Your task to perform on an android device: open wifi settings Image 0: 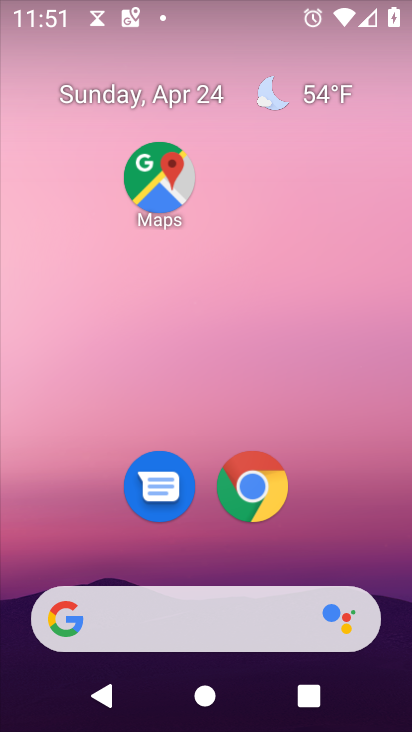
Step 0: drag from (219, 565) to (307, 47)
Your task to perform on an android device: open wifi settings Image 1: 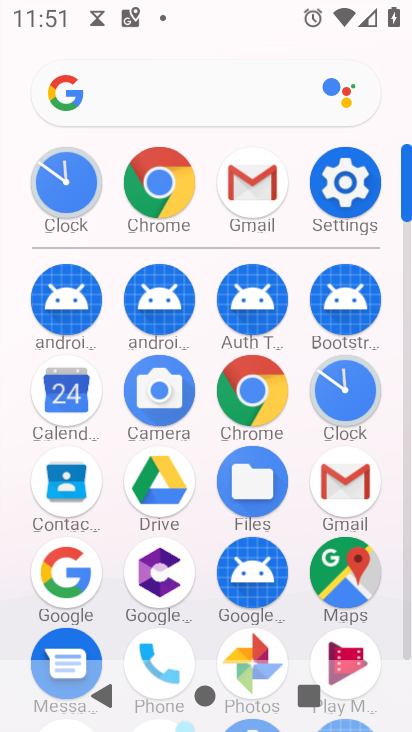
Step 1: click (368, 187)
Your task to perform on an android device: open wifi settings Image 2: 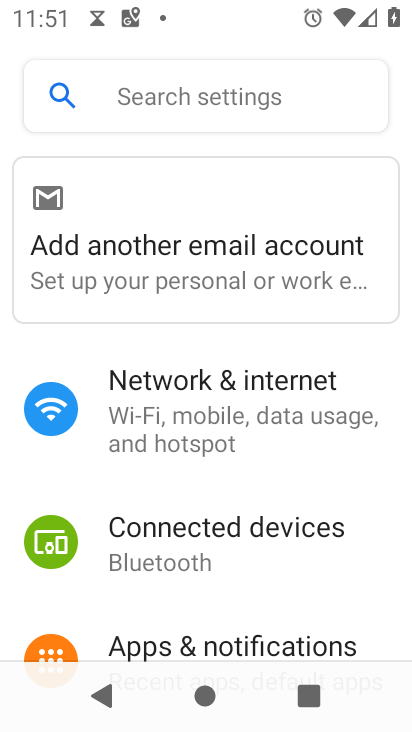
Step 2: click (233, 436)
Your task to perform on an android device: open wifi settings Image 3: 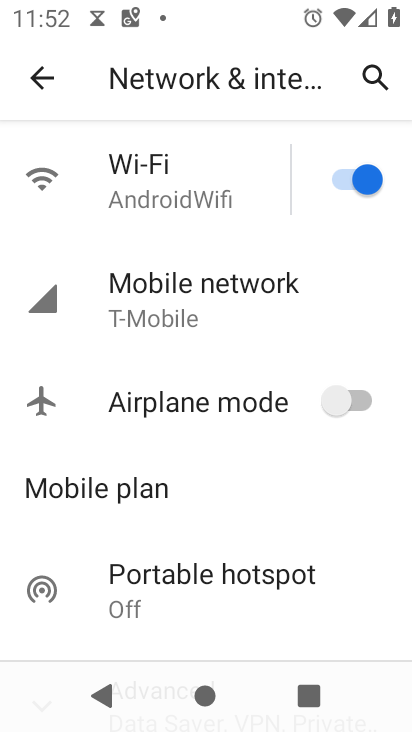
Step 3: click (180, 186)
Your task to perform on an android device: open wifi settings Image 4: 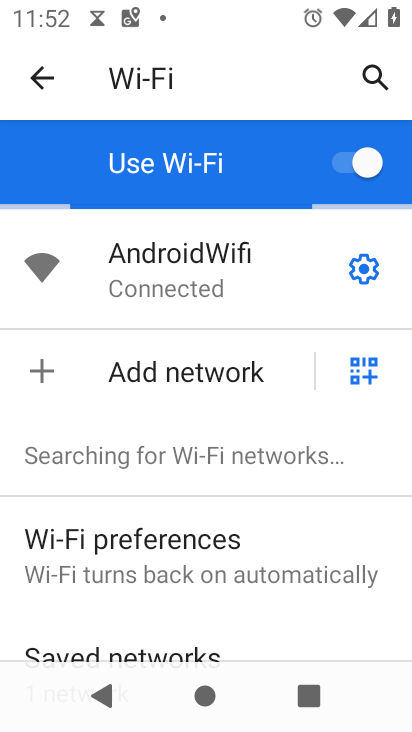
Step 4: click (180, 300)
Your task to perform on an android device: open wifi settings Image 5: 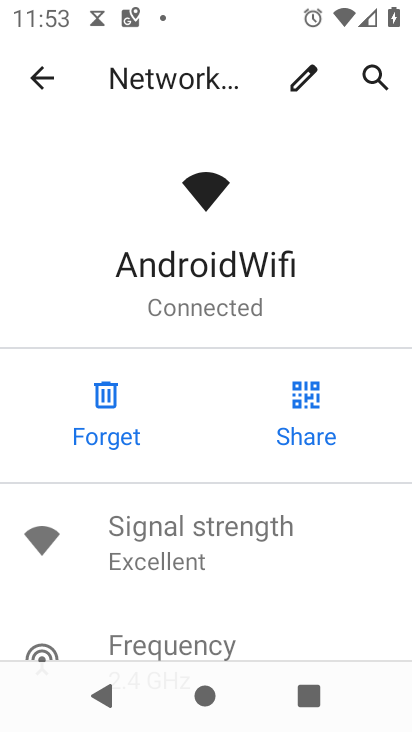
Step 5: task complete